Your task to perform on an android device: check google app version Image 0: 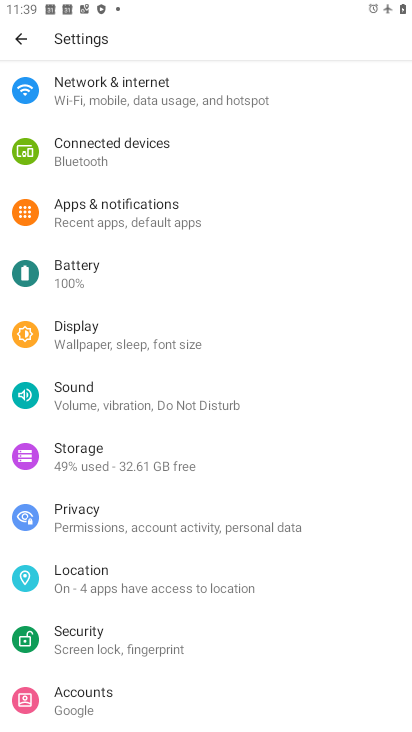
Step 0: press home button
Your task to perform on an android device: check google app version Image 1: 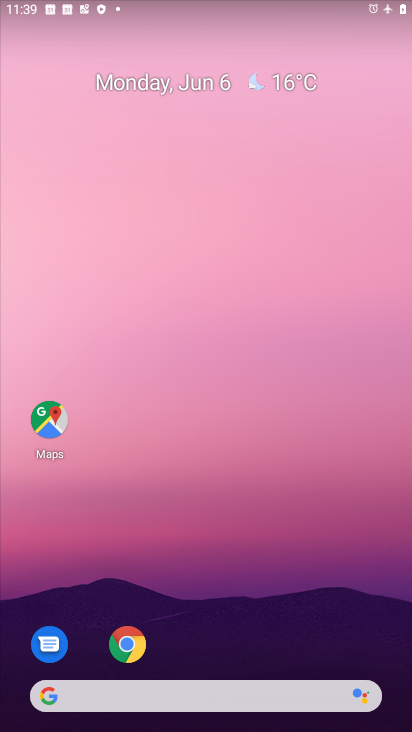
Step 1: drag from (241, 563) to (258, 118)
Your task to perform on an android device: check google app version Image 2: 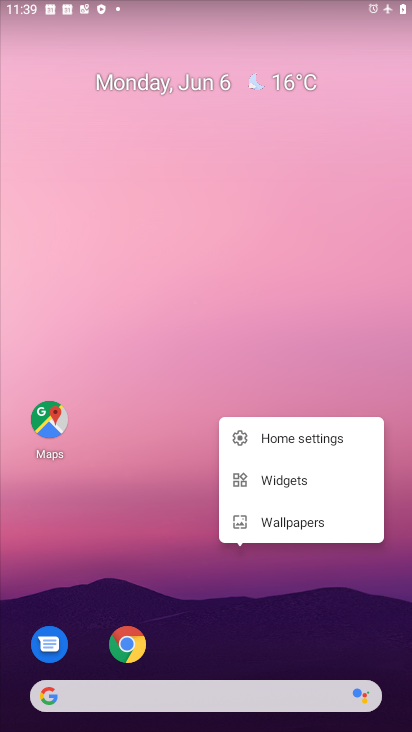
Step 2: drag from (158, 558) to (175, 155)
Your task to perform on an android device: check google app version Image 3: 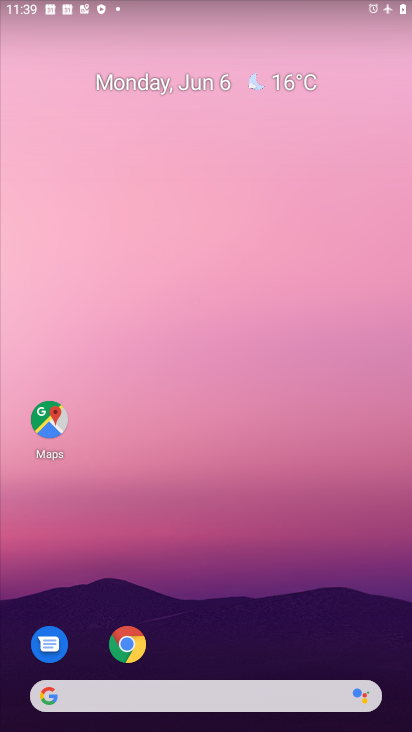
Step 3: drag from (228, 584) to (245, 109)
Your task to perform on an android device: check google app version Image 4: 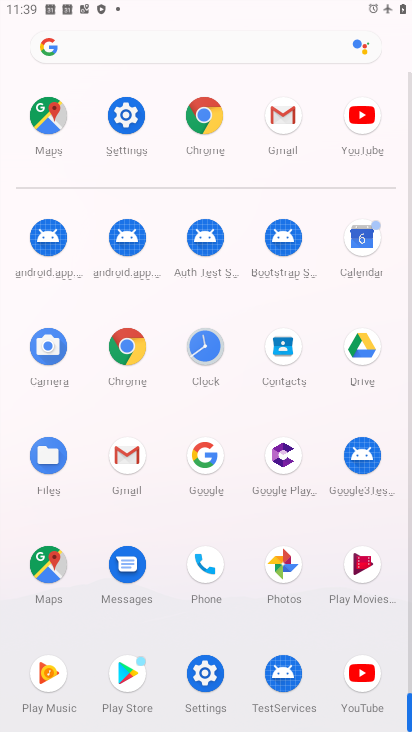
Step 4: click (207, 464)
Your task to perform on an android device: check google app version Image 5: 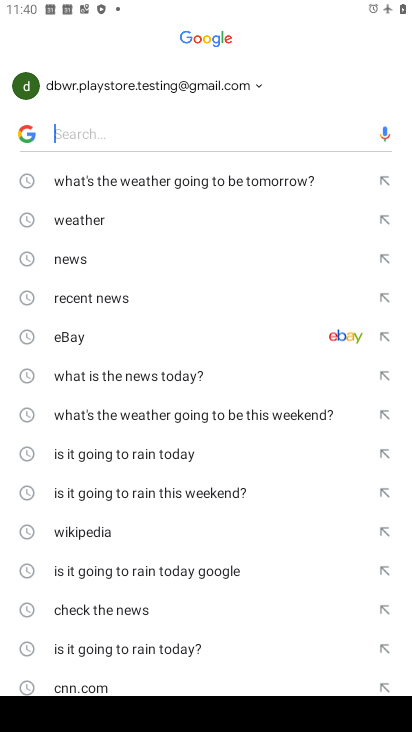
Step 5: press back button
Your task to perform on an android device: check google app version Image 6: 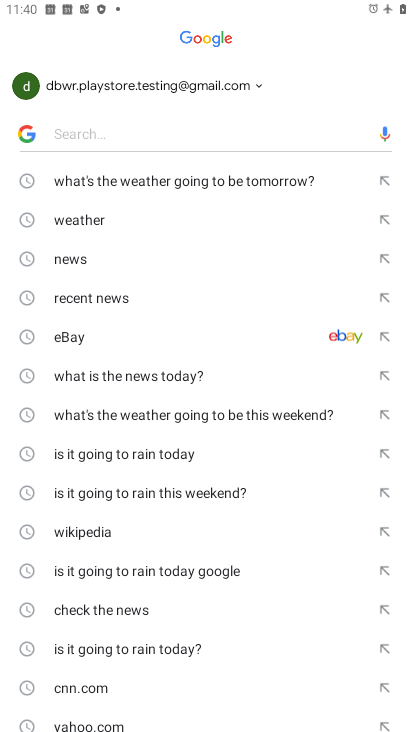
Step 6: drag from (255, 633) to (223, 158)
Your task to perform on an android device: check google app version Image 7: 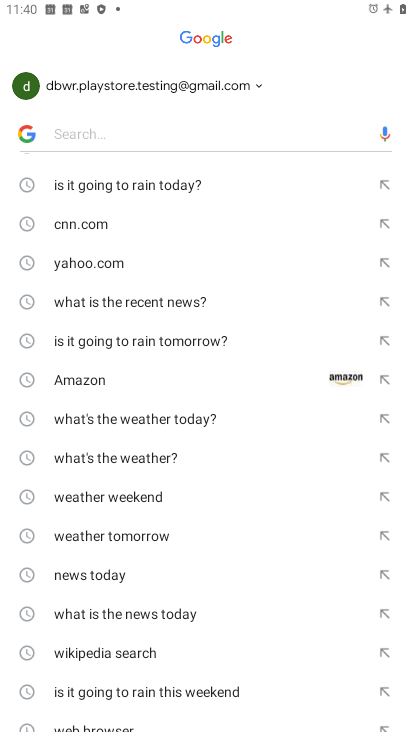
Step 7: click (302, 113)
Your task to perform on an android device: check google app version Image 8: 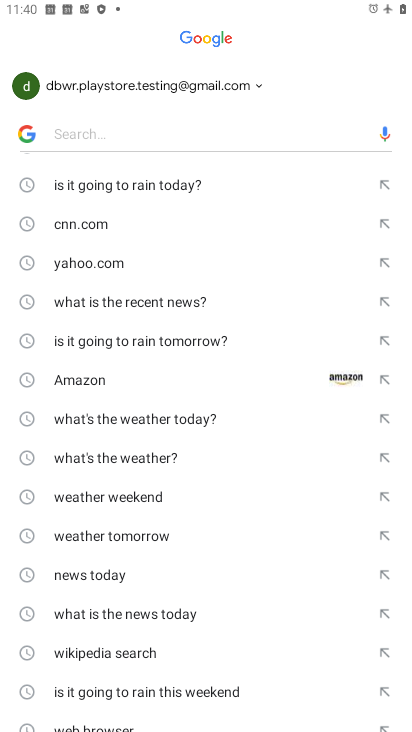
Step 8: press back button
Your task to perform on an android device: check google app version Image 9: 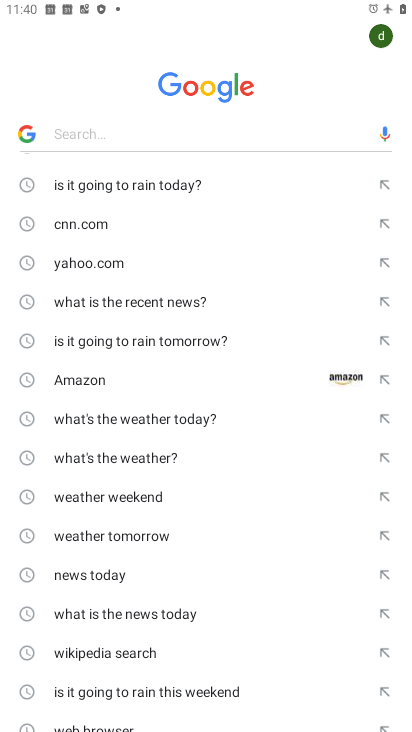
Step 9: click (375, 42)
Your task to perform on an android device: check google app version Image 10: 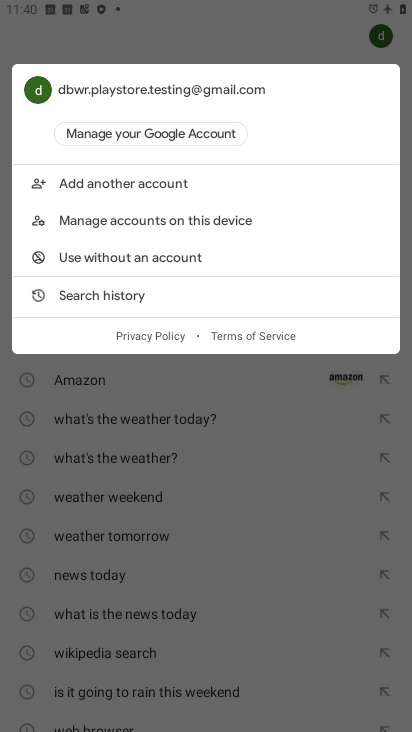
Step 10: click (280, 459)
Your task to perform on an android device: check google app version Image 11: 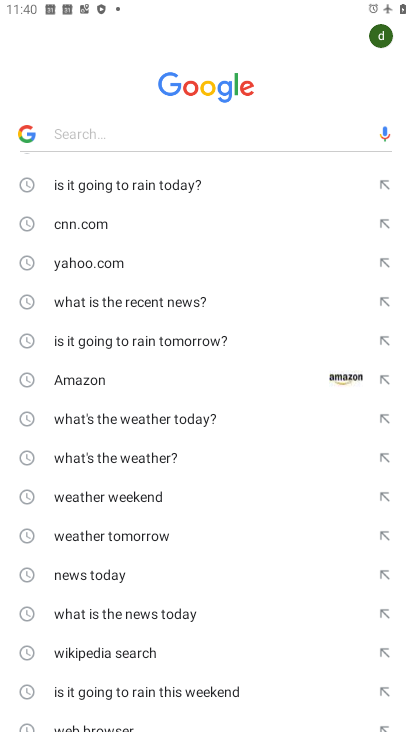
Step 11: click (244, 86)
Your task to perform on an android device: check google app version Image 12: 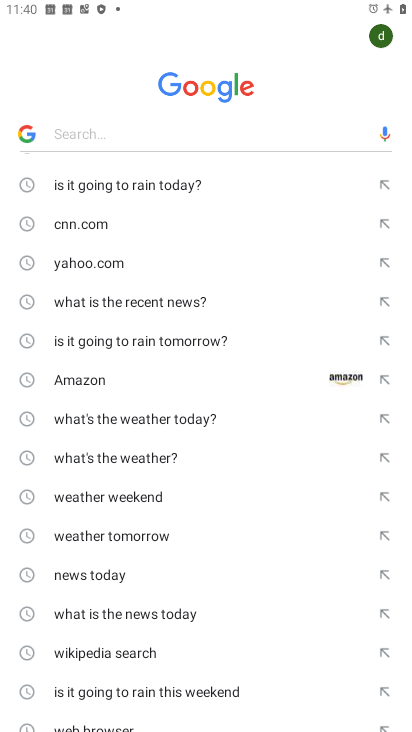
Step 12: drag from (254, 555) to (259, 102)
Your task to perform on an android device: check google app version Image 13: 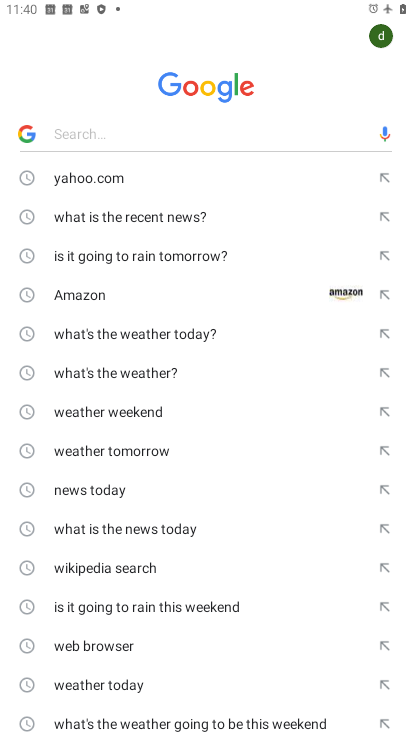
Step 13: click (26, 138)
Your task to perform on an android device: check google app version Image 14: 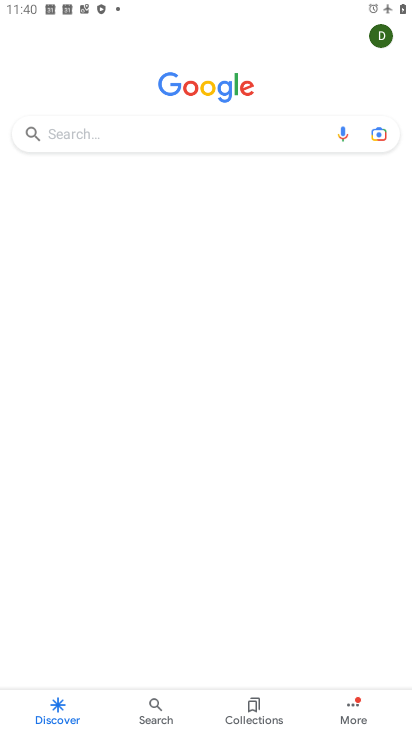
Step 14: click (338, 706)
Your task to perform on an android device: check google app version Image 15: 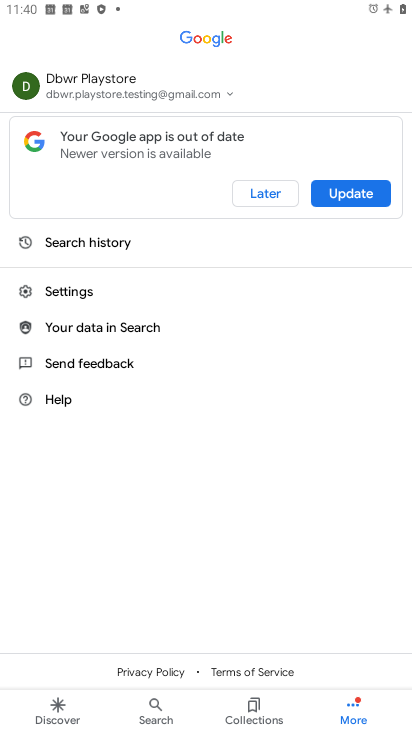
Step 15: click (116, 298)
Your task to perform on an android device: check google app version Image 16: 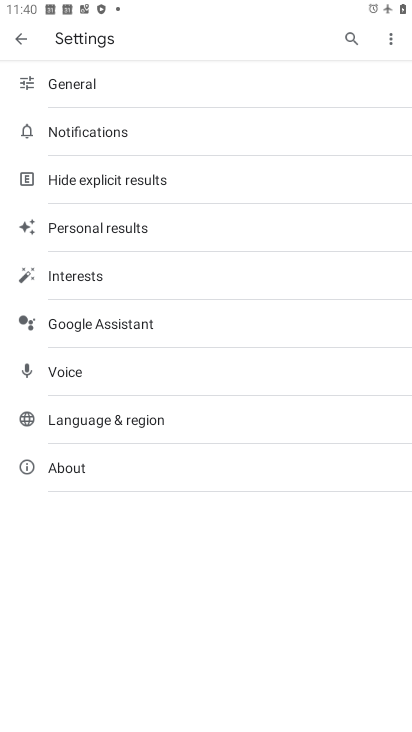
Step 16: click (119, 485)
Your task to perform on an android device: check google app version Image 17: 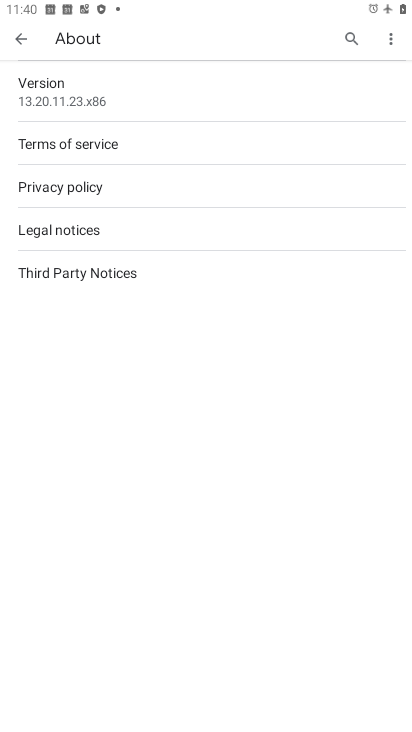
Step 17: task complete